Your task to perform on an android device: Open the calendar app, open the side menu, and click the "Day" option Image 0: 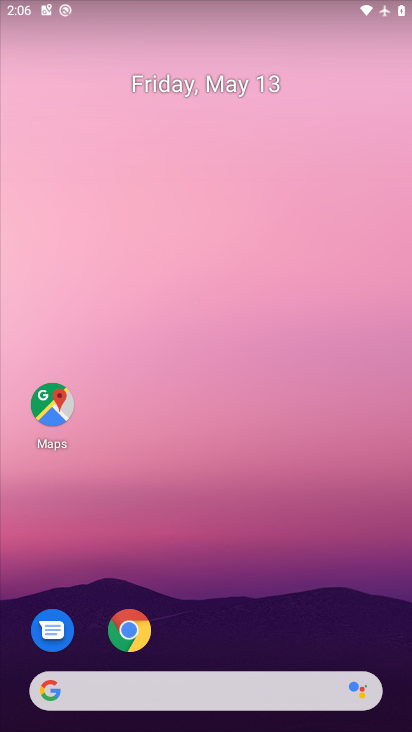
Step 0: drag from (243, 600) to (165, 252)
Your task to perform on an android device: Open the calendar app, open the side menu, and click the "Day" option Image 1: 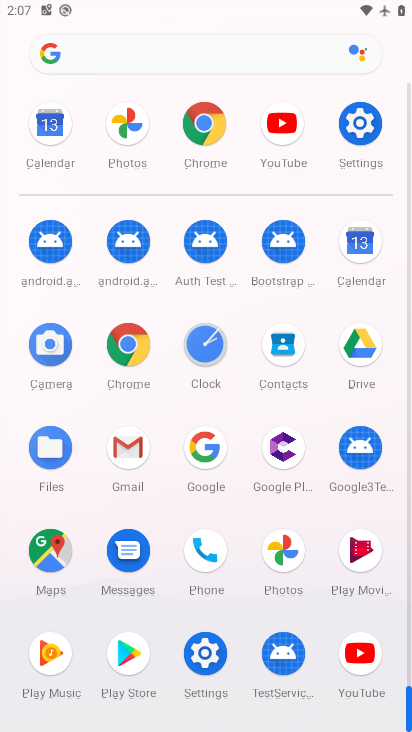
Step 1: drag from (213, 363) to (234, 119)
Your task to perform on an android device: Open the calendar app, open the side menu, and click the "Day" option Image 2: 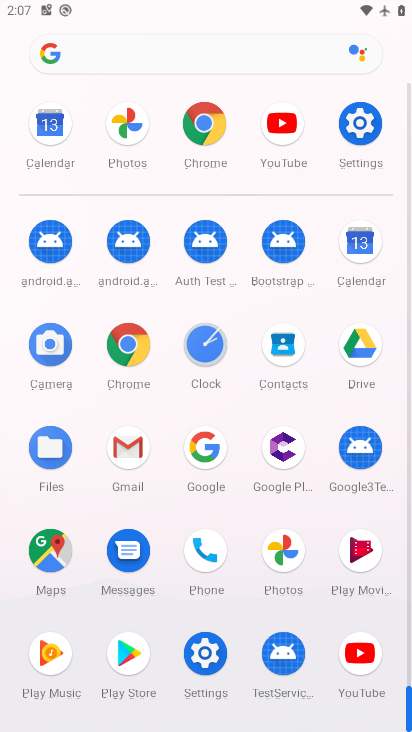
Step 2: click (365, 260)
Your task to perform on an android device: Open the calendar app, open the side menu, and click the "Day" option Image 3: 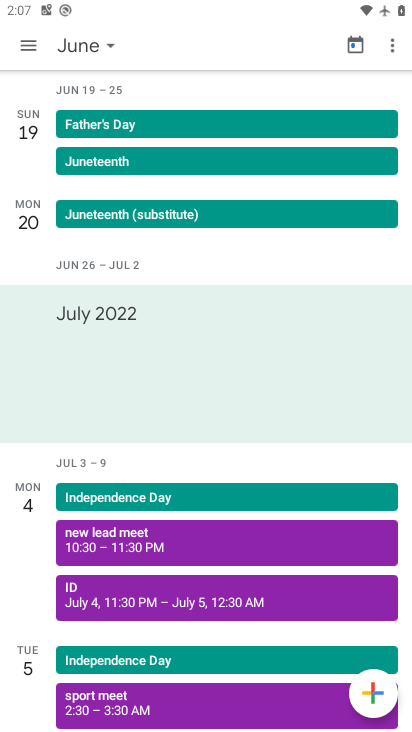
Step 3: click (9, 52)
Your task to perform on an android device: Open the calendar app, open the side menu, and click the "Day" option Image 4: 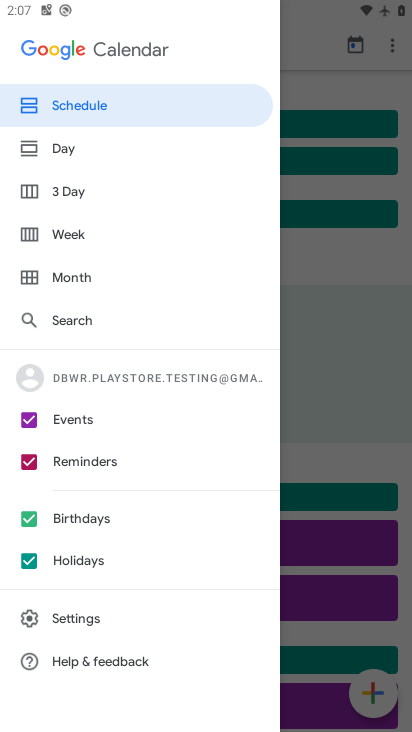
Step 4: click (56, 153)
Your task to perform on an android device: Open the calendar app, open the side menu, and click the "Day" option Image 5: 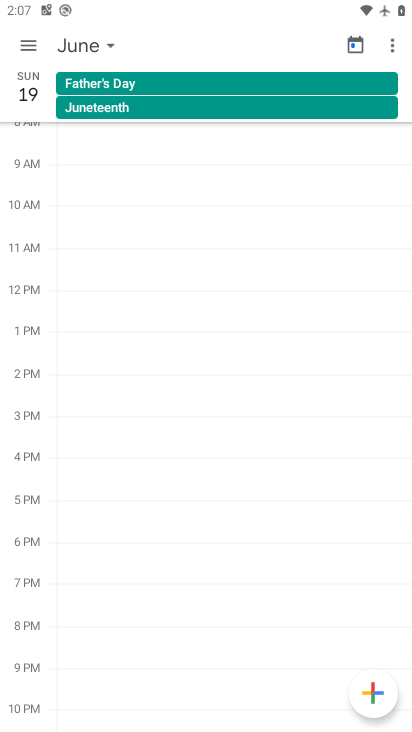
Step 5: task complete